Your task to perform on an android device: change your default location settings in chrome Image 0: 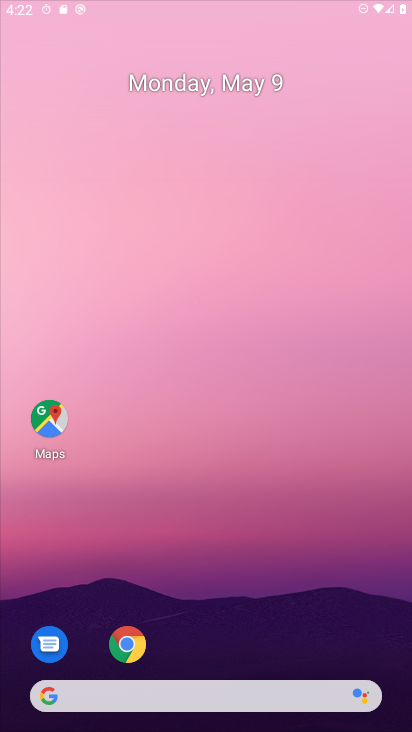
Step 0: click (171, 153)
Your task to perform on an android device: change your default location settings in chrome Image 1: 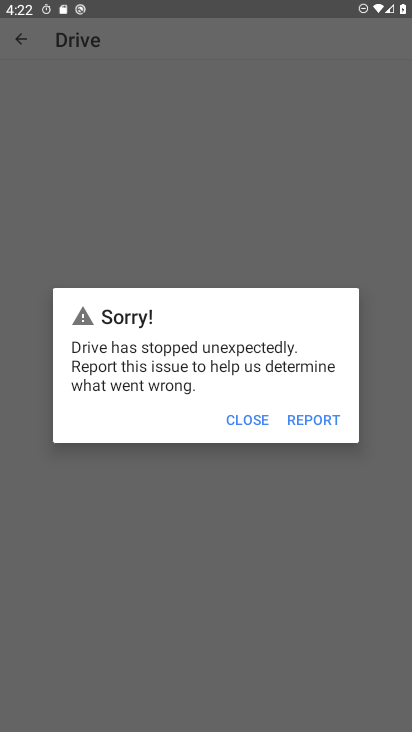
Step 1: press home button
Your task to perform on an android device: change your default location settings in chrome Image 2: 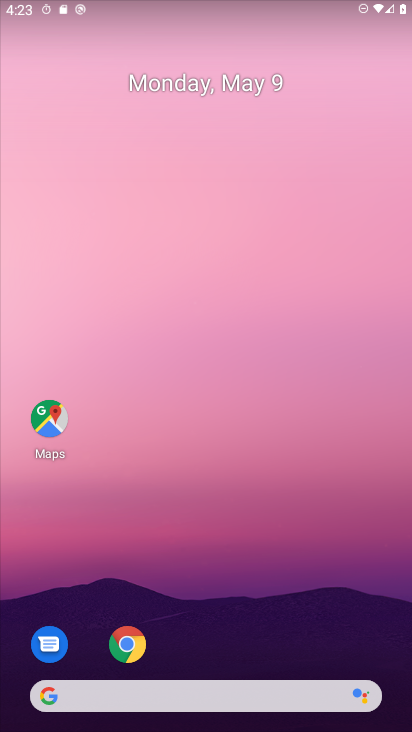
Step 2: click (126, 652)
Your task to perform on an android device: change your default location settings in chrome Image 3: 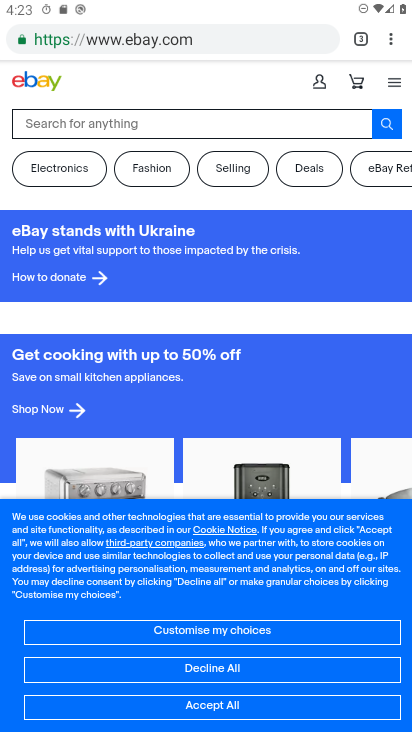
Step 3: click (390, 41)
Your task to perform on an android device: change your default location settings in chrome Image 4: 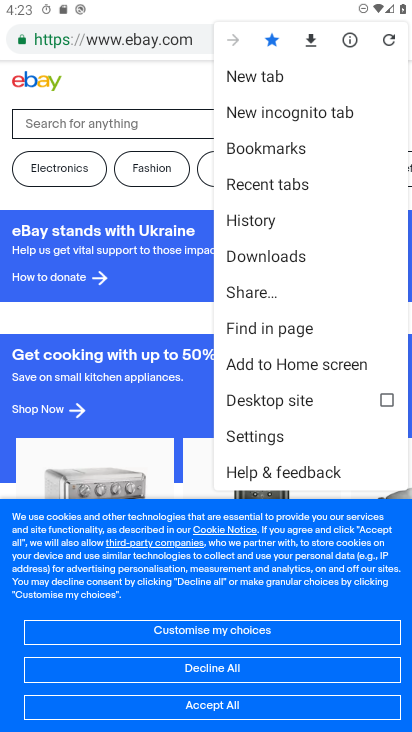
Step 4: click (269, 444)
Your task to perform on an android device: change your default location settings in chrome Image 5: 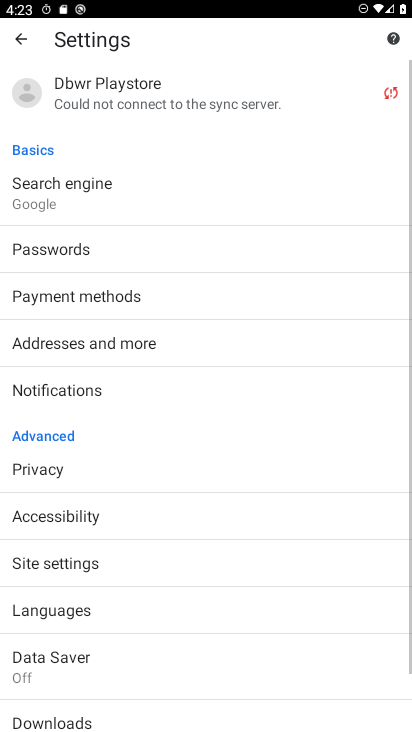
Step 5: drag from (102, 606) to (77, 264)
Your task to perform on an android device: change your default location settings in chrome Image 6: 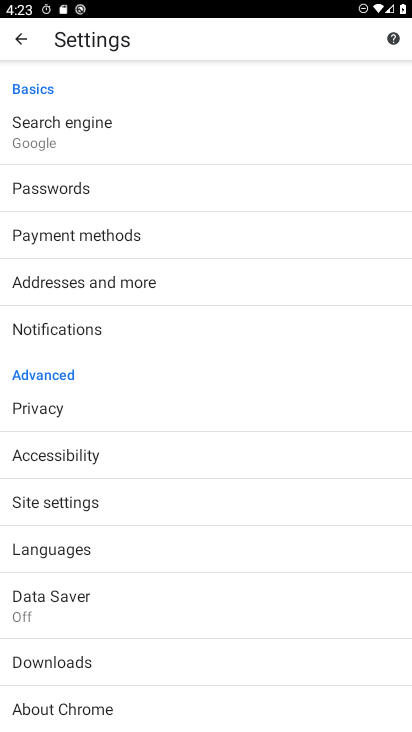
Step 6: click (57, 506)
Your task to perform on an android device: change your default location settings in chrome Image 7: 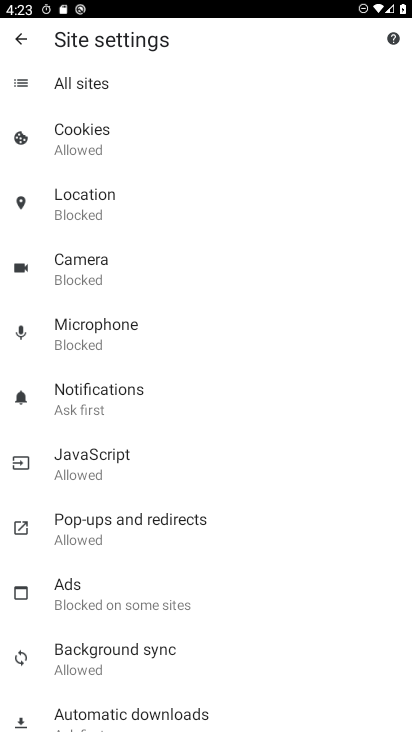
Step 7: click (81, 196)
Your task to perform on an android device: change your default location settings in chrome Image 8: 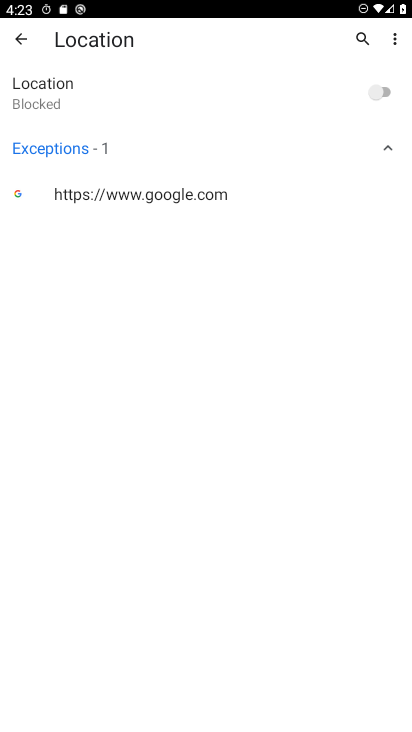
Step 8: click (386, 90)
Your task to perform on an android device: change your default location settings in chrome Image 9: 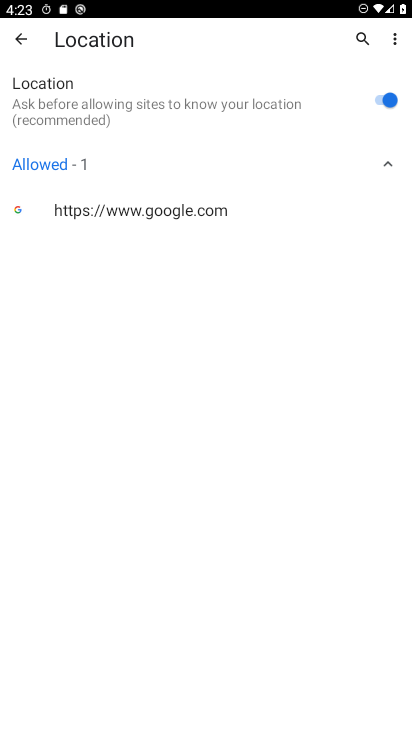
Step 9: task complete